Your task to perform on an android device: Go to accessibility settings Image 0: 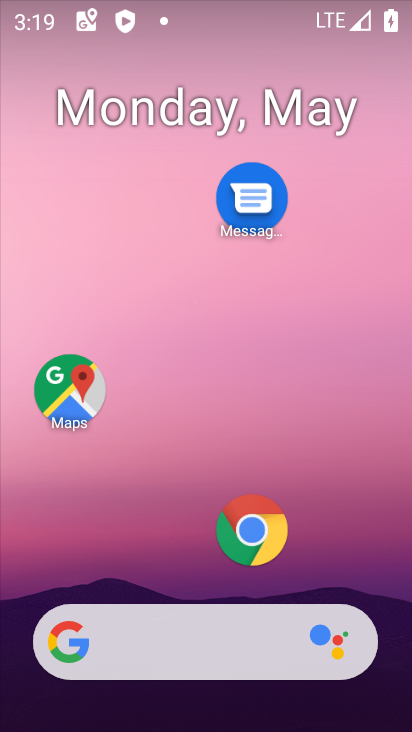
Step 0: drag from (133, 546) to (172, 79)
Your task to perform on an android device: Go to accessibility settings Image 1: 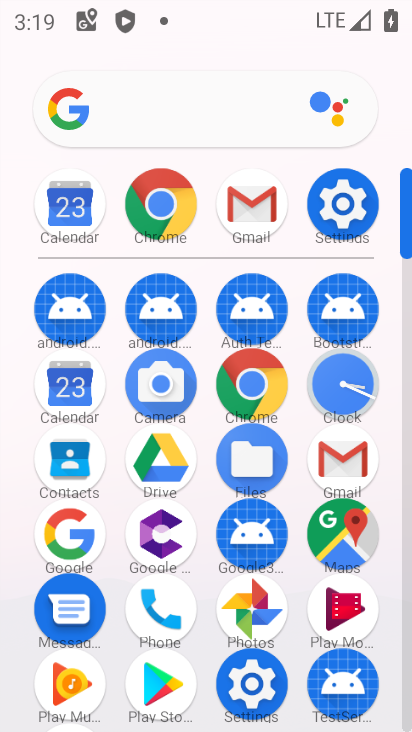
Step 1: click (322, 222)
Your task to perform on an android device: Go to accessibility settings Image 2: 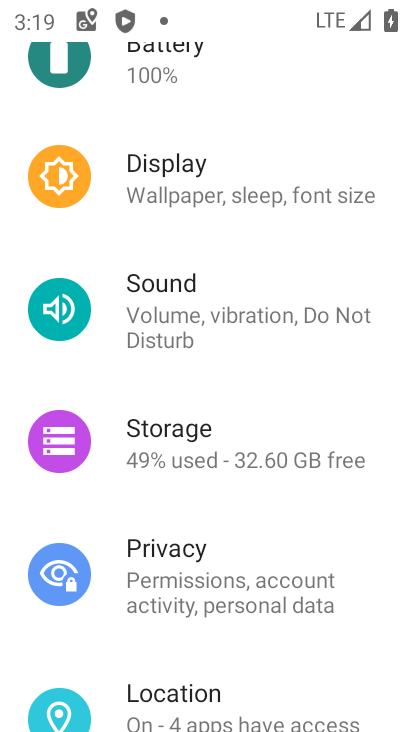
Step 2: drag from (206, 614) to (271, 165)
Your task to perform on an android device: Go to accessibility settings Image 3: 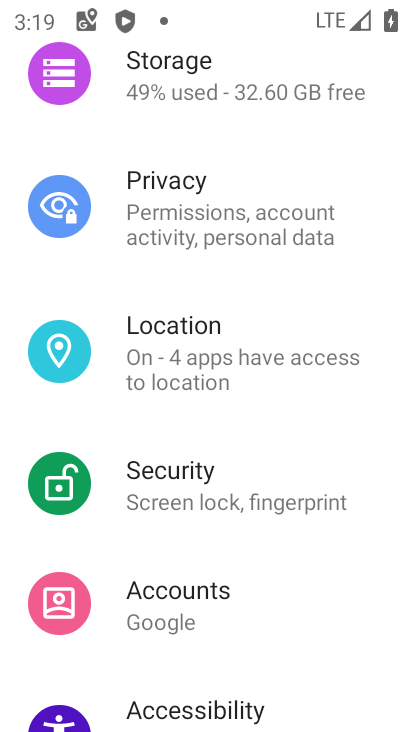
Step 3: drag from (177, 645) to (272, 502)
Your task to perform on an android device: Go to accessibility settings Image 4: 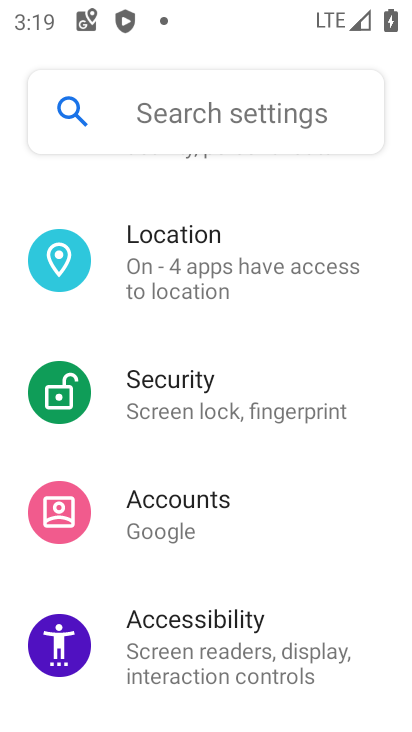
Step 4: click (197, 654)
Your task to perform on an android device: Go to accessibility settings Image 5: 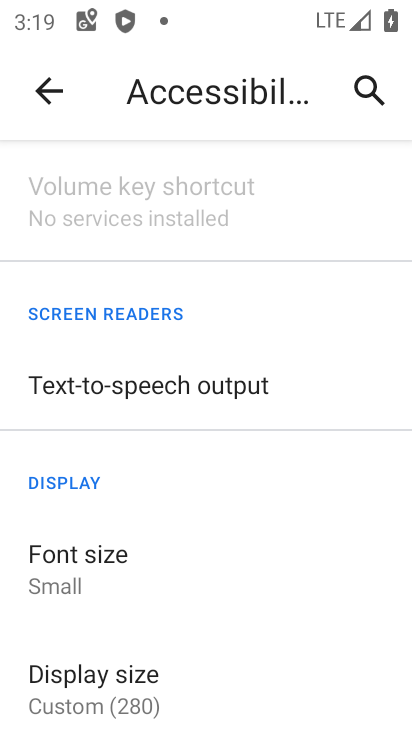
Step 5: task complete